Your task to perform on an android device: Open the web browser Image 0: 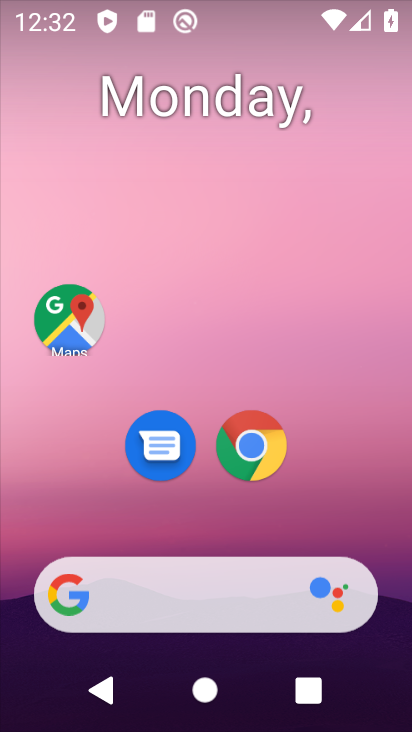
Step 0: drag from (174, 527) to (249, 32)
Your task to perform on an android device: Open the web browser Image 1: 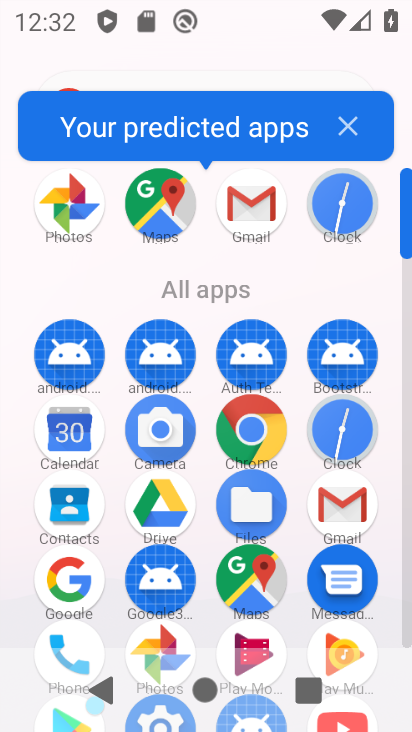
Step 1: click (77, 594)
Your task to perform on an android device: Open the web browser Image 2: 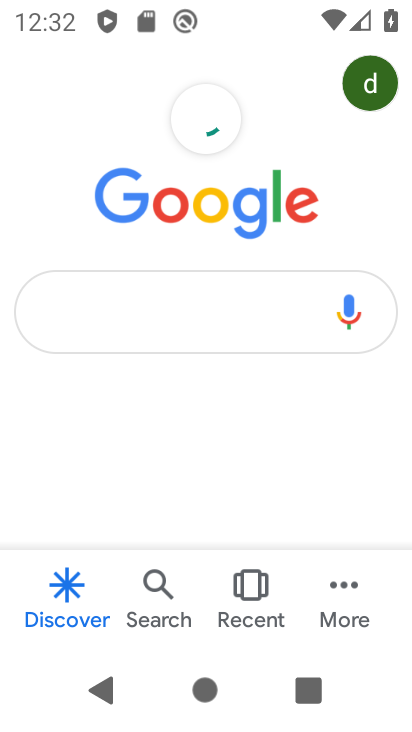
Step 2: task complete